Your task to perform on an android device: What's the weather? Image 0: 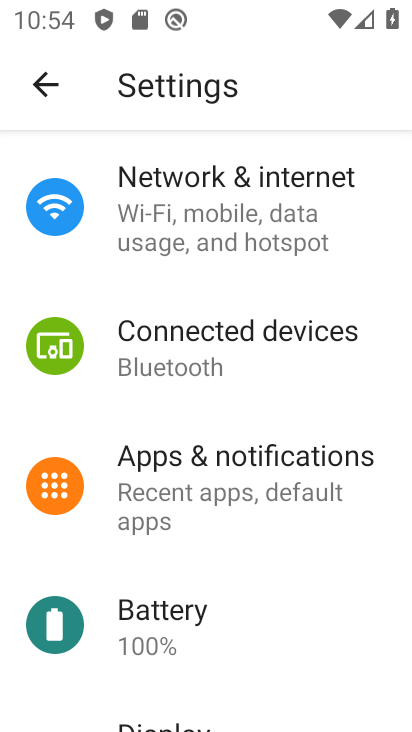
Step 0: press home button
Your task to perform on an android device: What's the weather? Image 1: 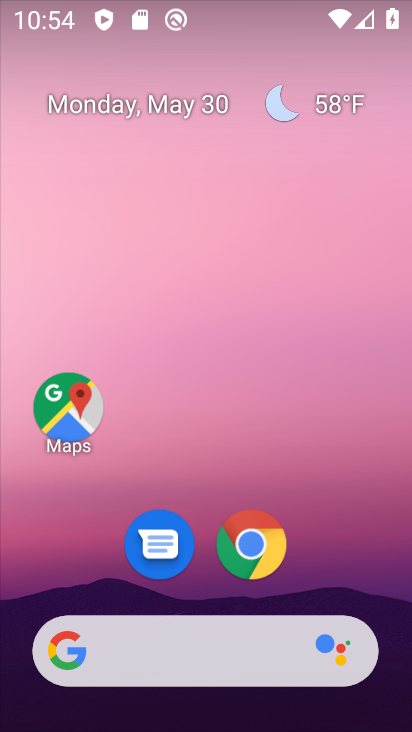
Step 1: click (155, 647)
Your task to perform on an android device: What's the weather? Image 2: 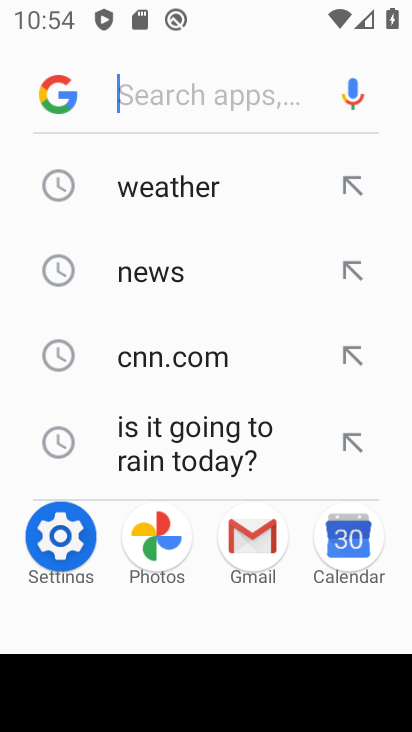
Step 2: click (218, 187)
Your task to perform on an android device: What's the weather? Image 3: 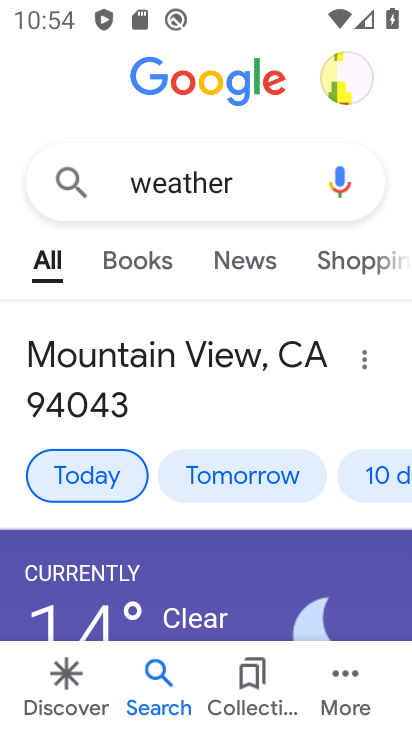
Step 3: task complete